Your task to perform on an android device: delete a single message in the gmail app Image 0: 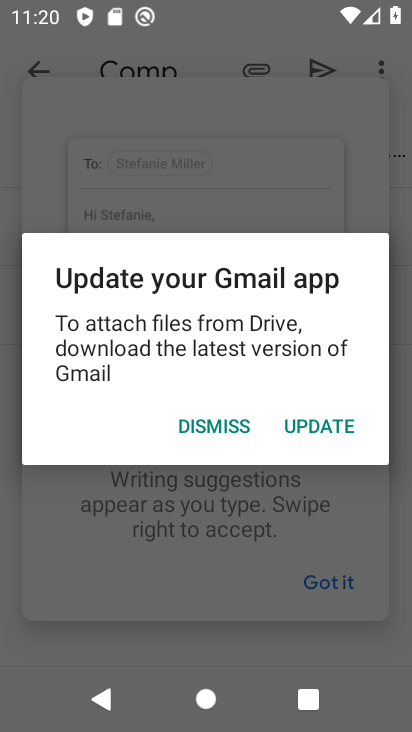
Step 0: press back button
Your task to perform on an android device: delete a single message in the gmail app Image 1: 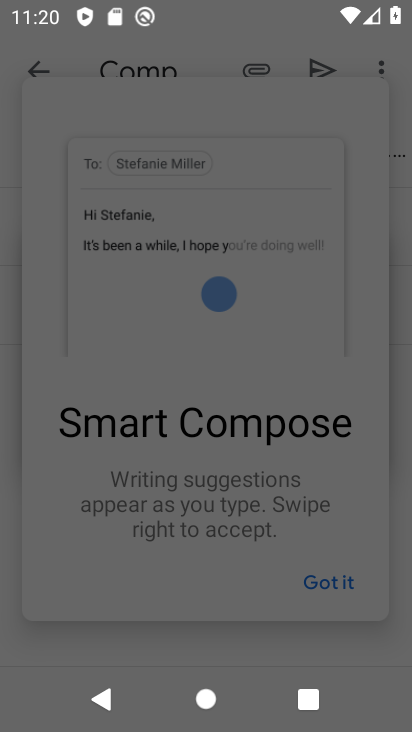
Step 1: press back button
Your task to perform on an android device: delete a single message in the gmail app Image 2: 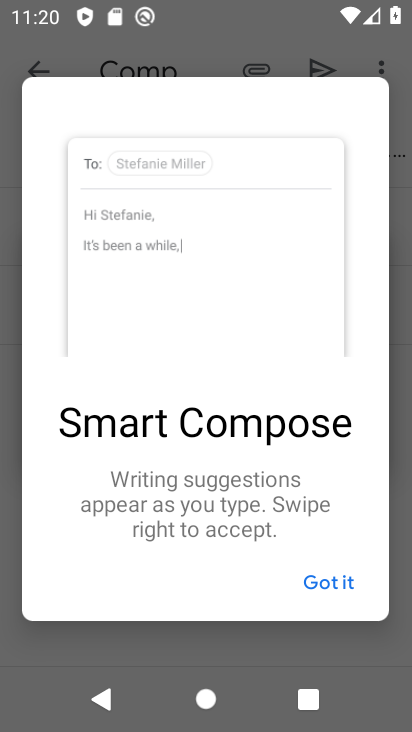
Step 2: press home button
Your task to perform on an android device: delete a single message in the gmail app Image 3: 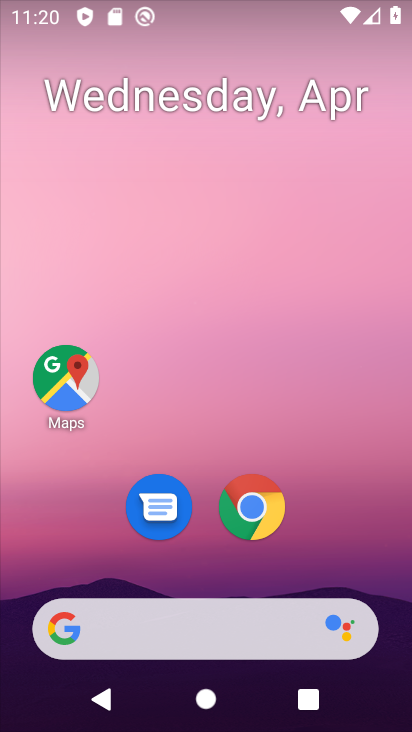
Step 3: drag from (352, 494) to (290, 48)
Your task to perform on an android device: delete a single message in the gmail app Image 4: 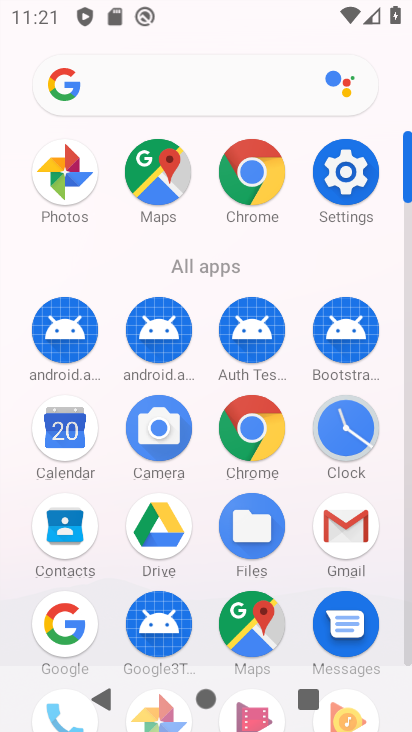
Step 4: click (338, 523)
Your task to perform on an android device: delete a single message in the gmail app Image 5: 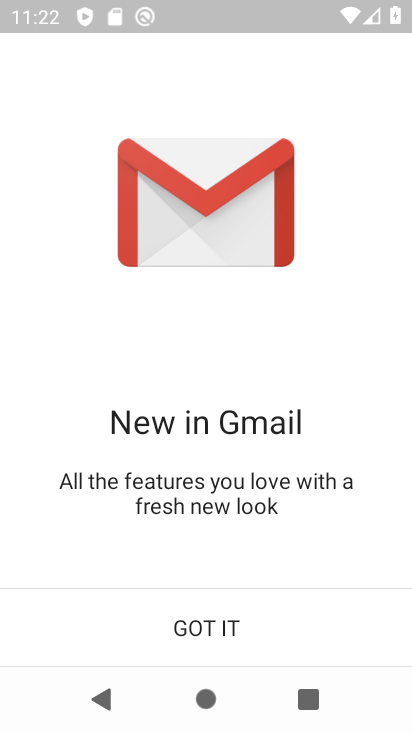
Step 5: click (317, 609)
Your task to perform on an android device: delete a single message in the gmail app Image 6: 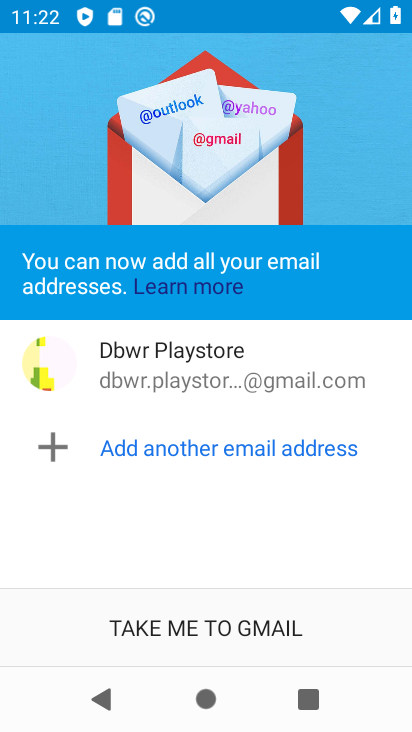
Step 6: click (252, 642)
Your task to perform on an android device: delete a single message in the gmail app Image 7: 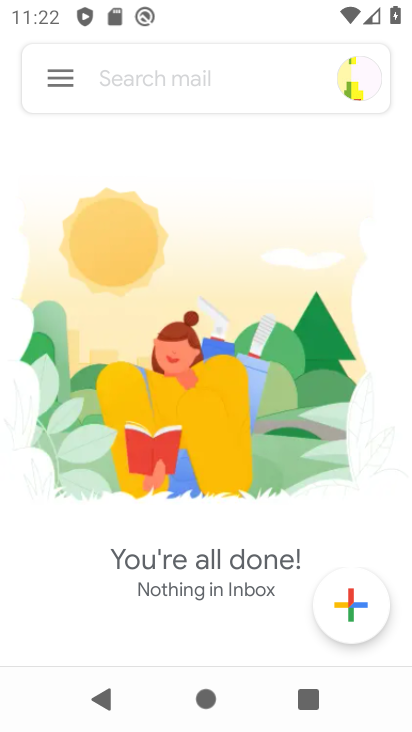
Step 7: task complete